Your task to perform on an android device: open app "Walmart Shopping & Grocery" Image 0: 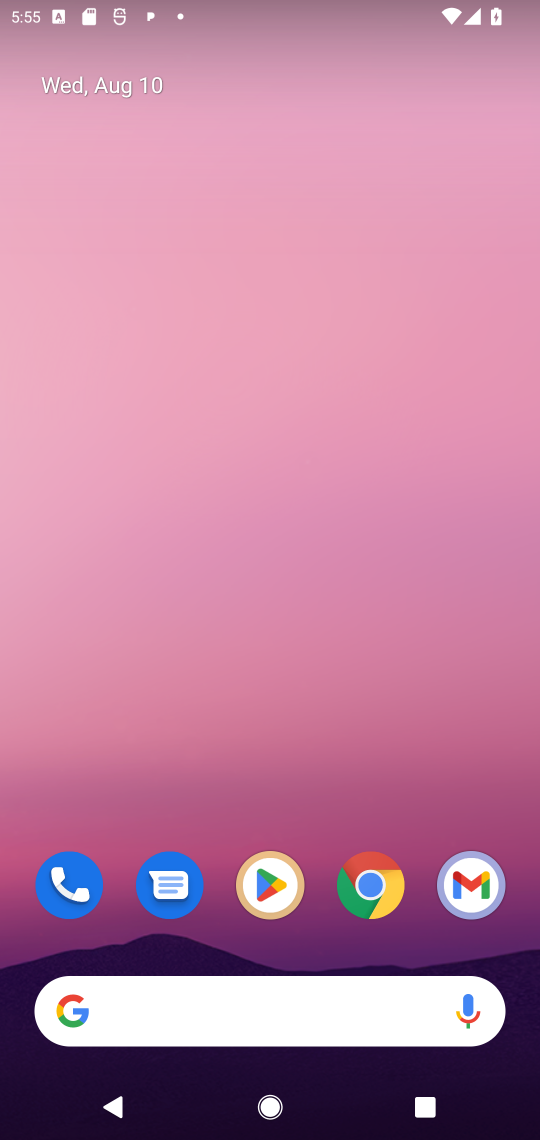
Step 0: click (272, 892)
Your task to perform on an android device: open app "Walmart Shopping & Grocery" Image 1: 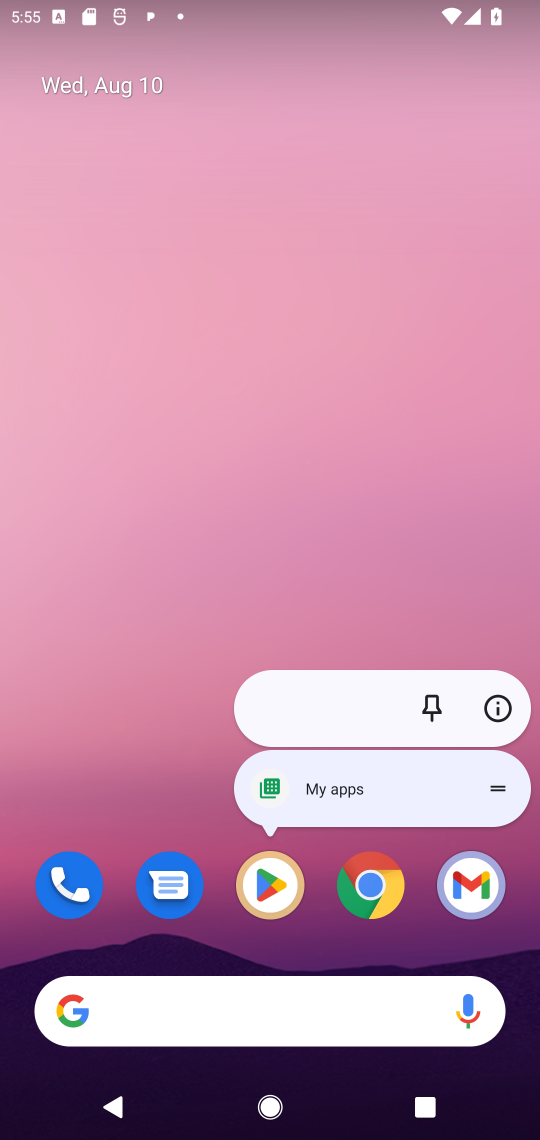
Step 1: click (272, 892)
Your task to perform on an android device: open app "Walmart Shopping & Grocery" Image 2: 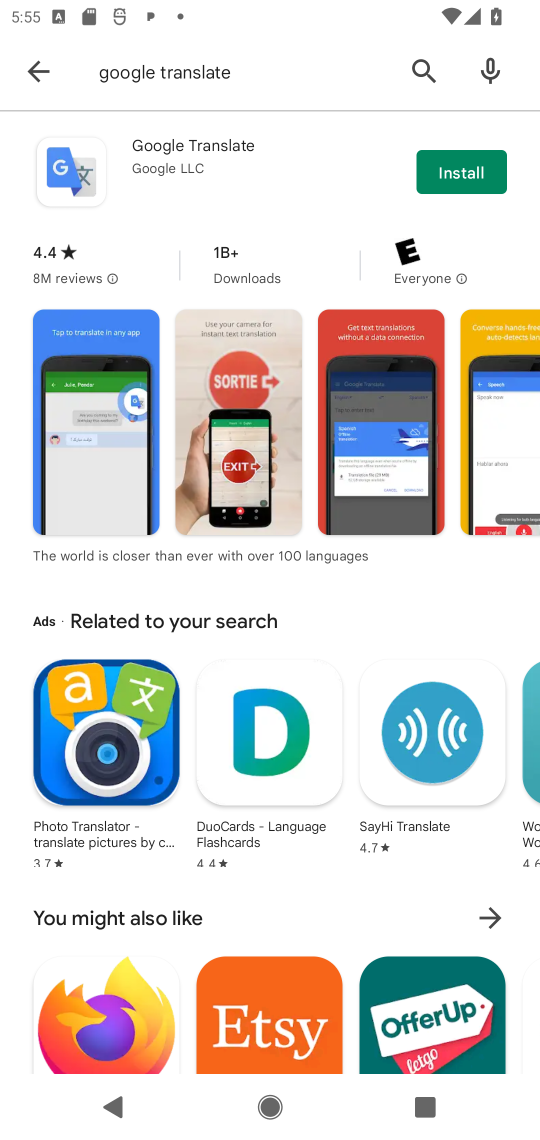
Step 2: click (414, 70)
Your task to perform on an android device: open app "Walmart Shopping & Grocery" Image 3: 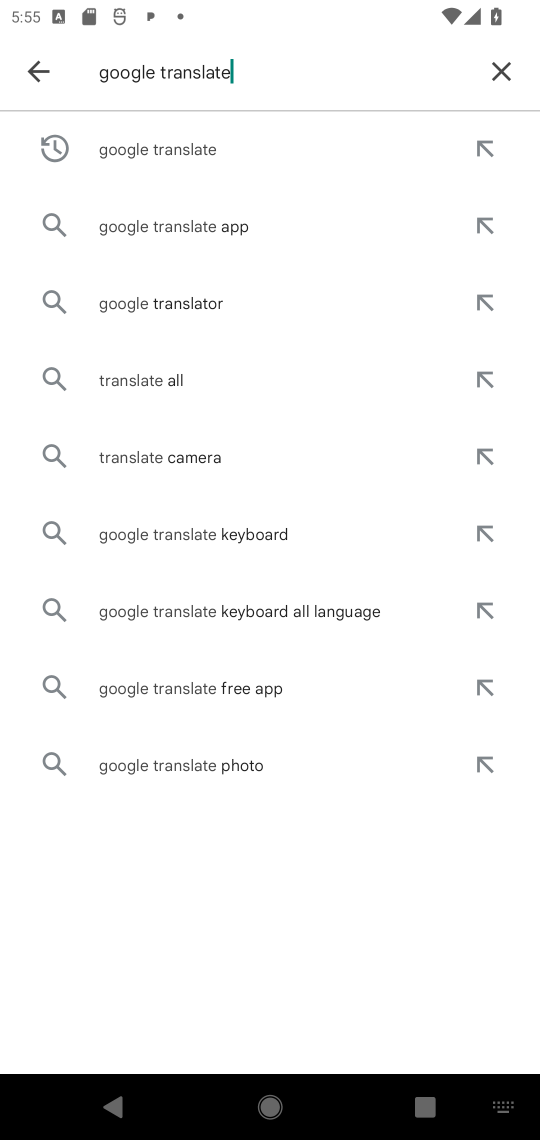
Step 3: click (506, 71)
Your task to perform on an android device: open app "Walmart Shopping & Grocery" Image 4: 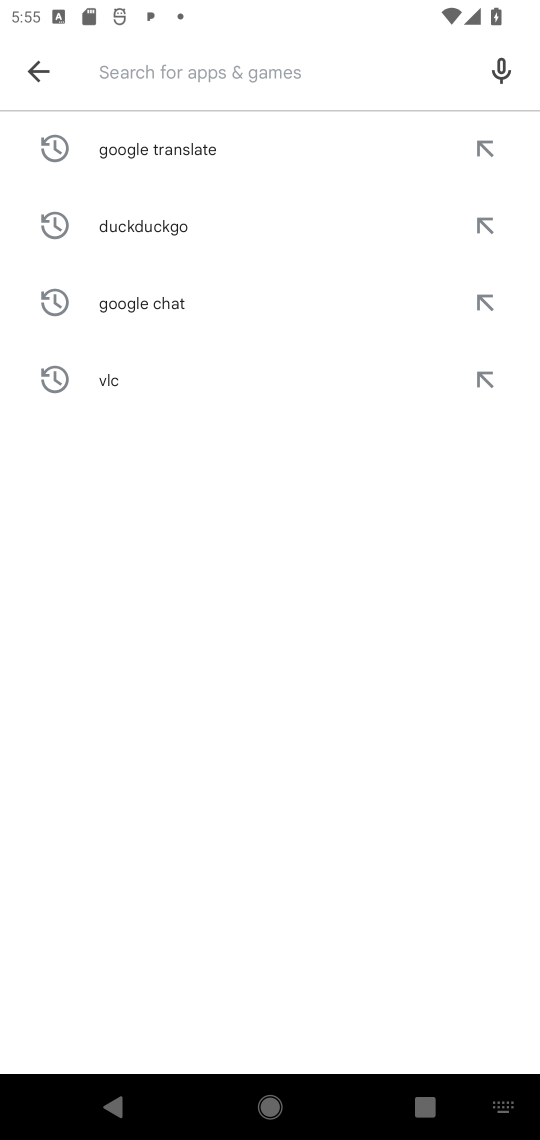
Step 4: click (157, 81)
Your task to perform on an android device: open app "Walmart Shopping & Grocery" Image 5: 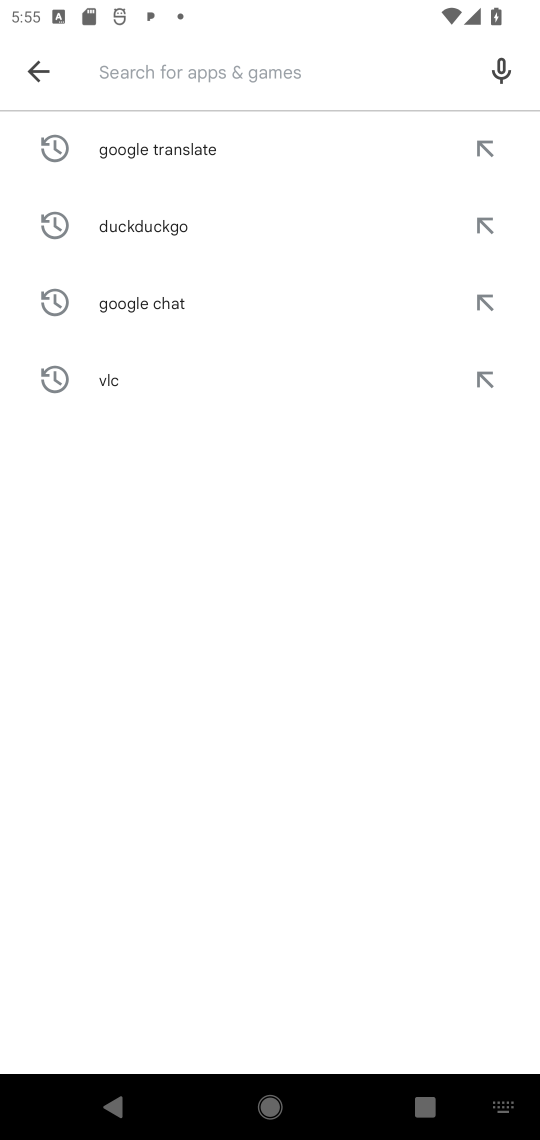
Step 5: type "Walmart Shopping & Grocery"
Your task to perform on an android device: open app "Walmart Shopping & Grocery" Image 6: 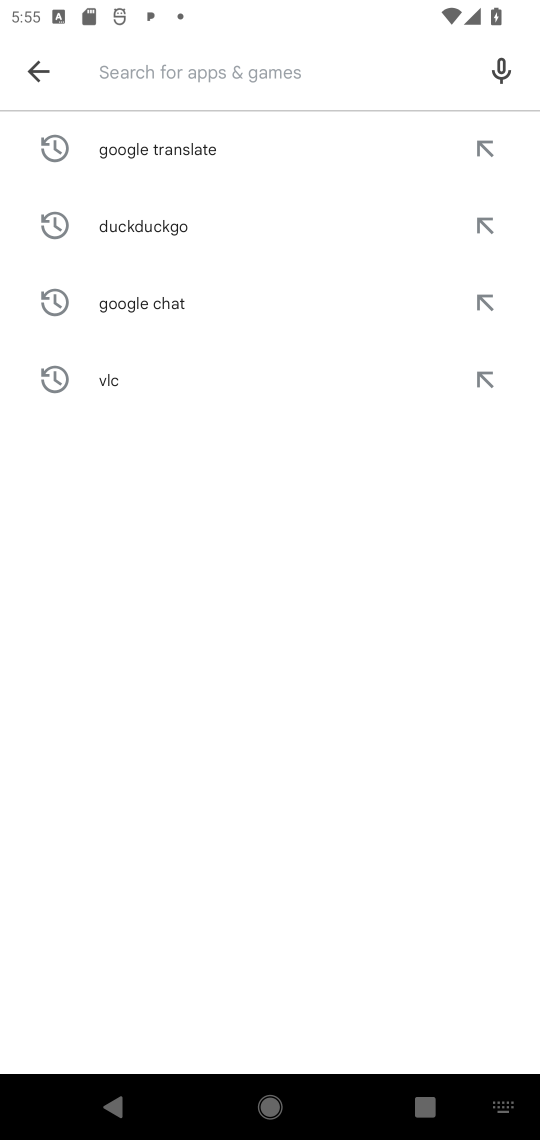
Step 6: click (218, 609)
Your task to perform on an android device: open app "Walmart Shopping & Grocery" Image 7: 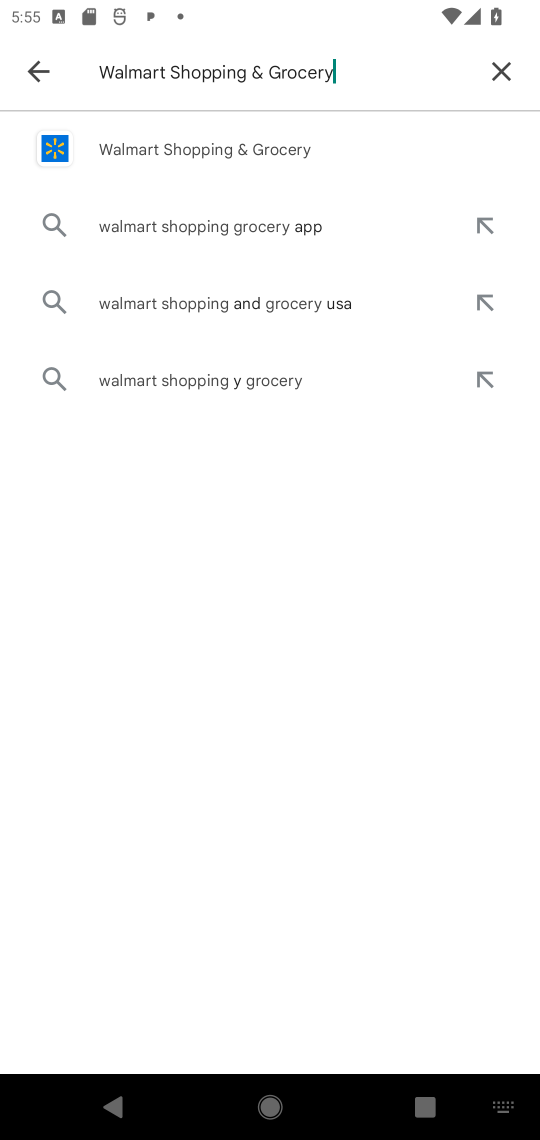
Step 7: click (225, 140)
Your task to perform on an android device: open app "Walmart Shopping & Grocery" Image 8: 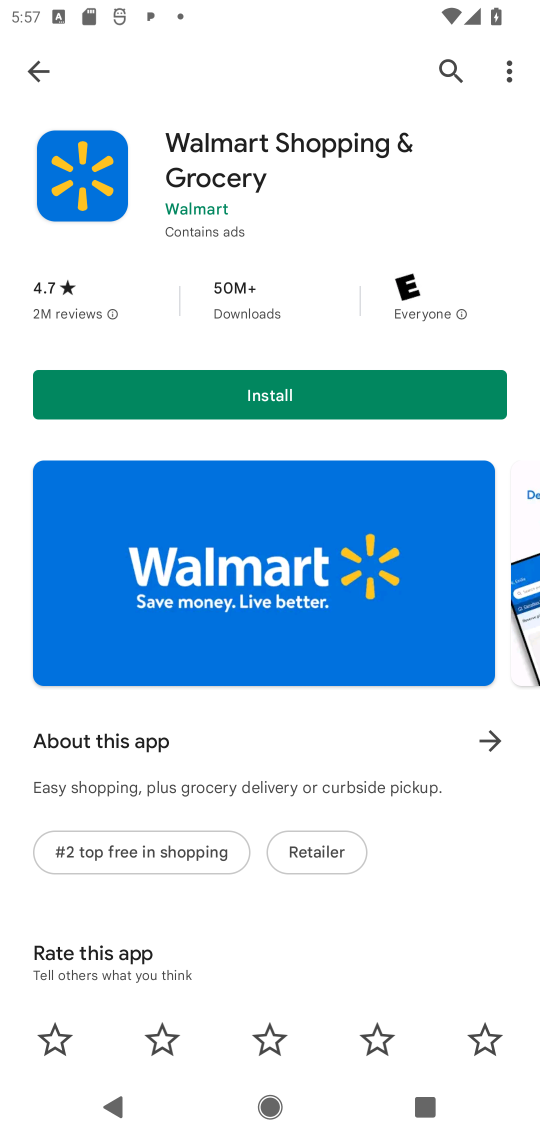
Step 8: task complete